Your task to perform on an android device: Show me recent news Image 0: 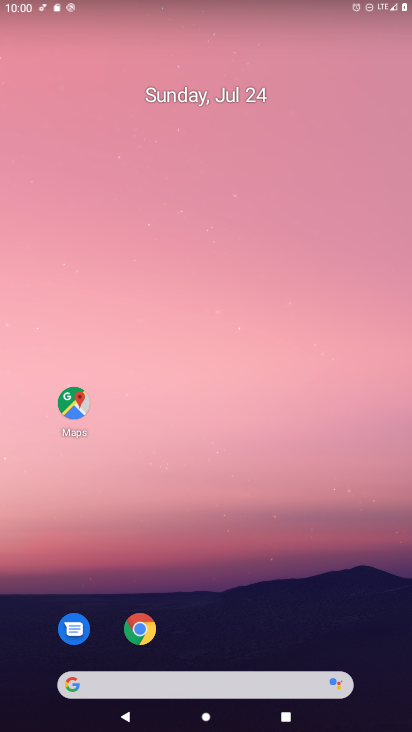
Step 0: drag from (327, 522) to (153, 52)
Your task to perform on an android device: Show me recent news Image 1: 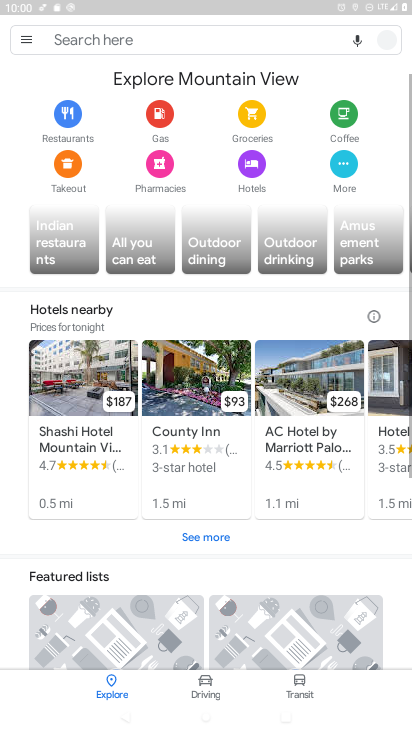
Step 1: press home button
Your task to perform on an android device: Show me recent news Image 2: 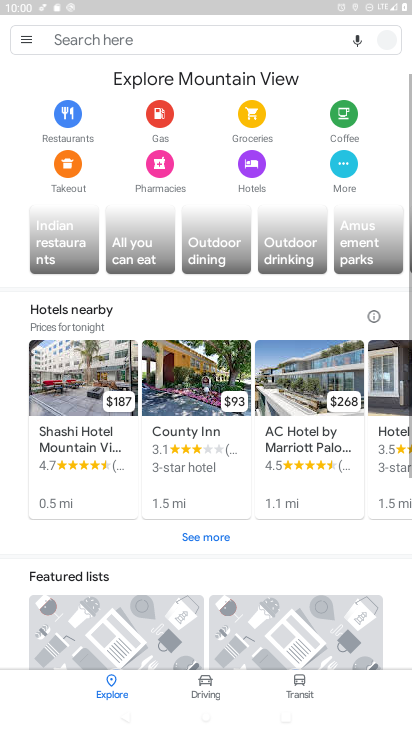
Step 2: click (180, 0)
Your task to perform on an android device: Show me recent news Image 3: 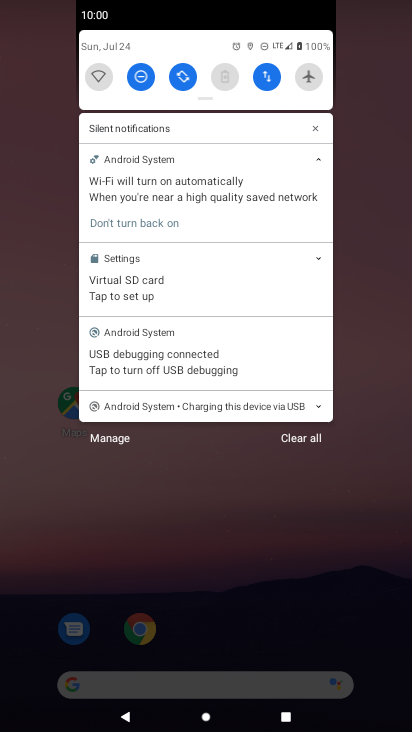
Step 3: click (370, 609)
Your task to perform on an android device: Show me recent news Image 4: 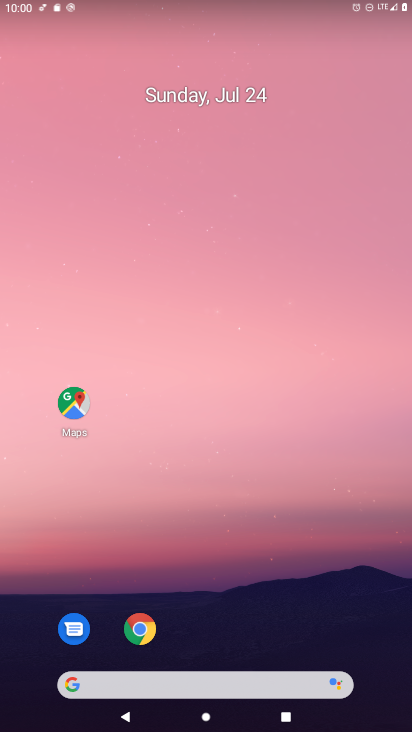
Step 4: drag from (329, 607) to (175, 77)
Your task to perform on an android device: Show me recent news Image 5: 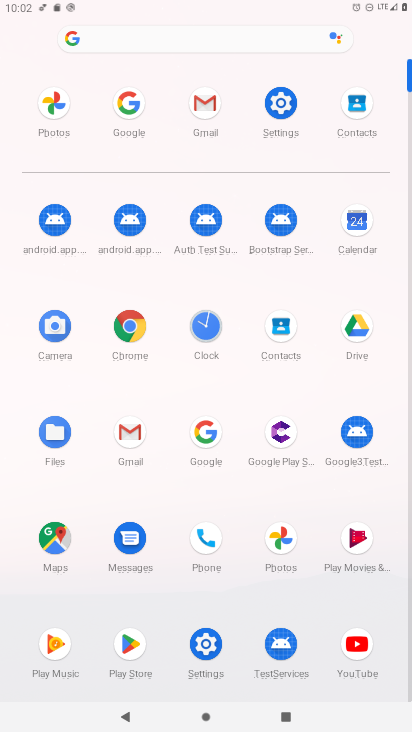
Step 5: click (198, 437)
Your task to perform on an android device: Show me recent news Image 6: 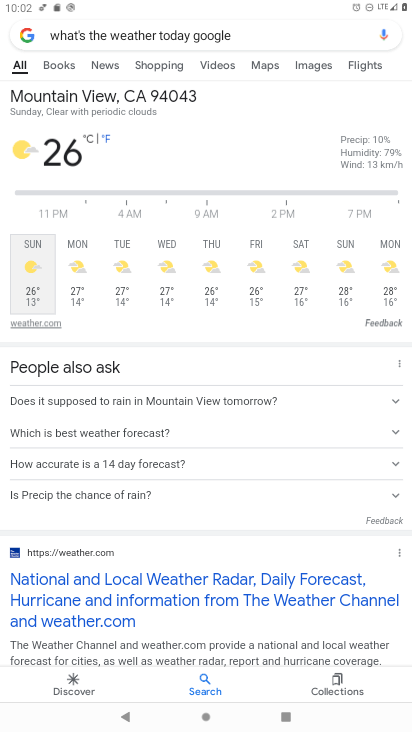
Step 6: press back button
Your task to perform on an android device: Show me recent news Image 7: 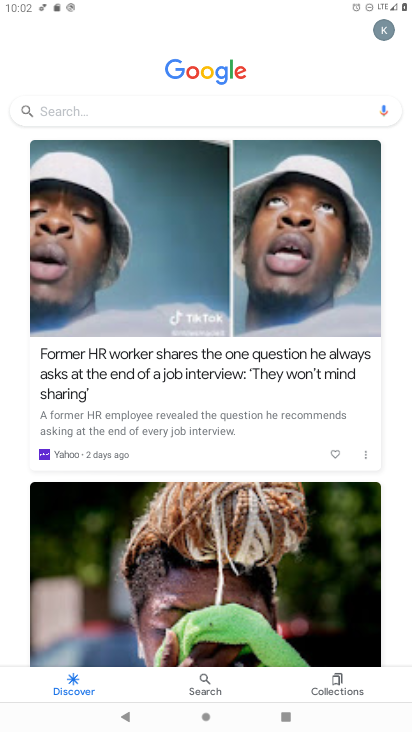
Step 7: click (106, 113)
Your task to perform on an android device: Show me recent news Image 8: 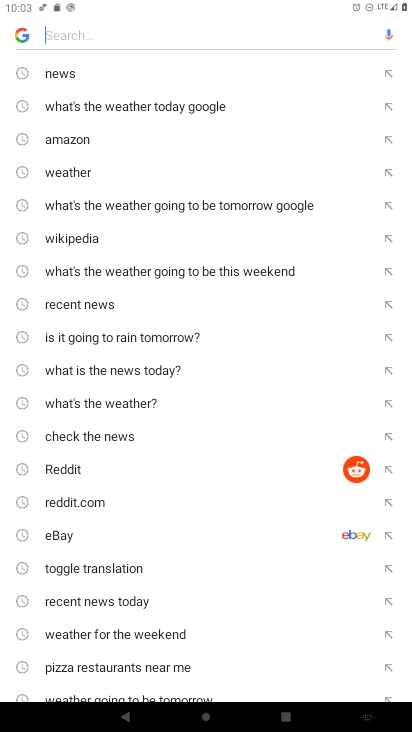
Step 8: type "Show me recent news"
Your task to perform on an android device: Show me recent news Image 9: 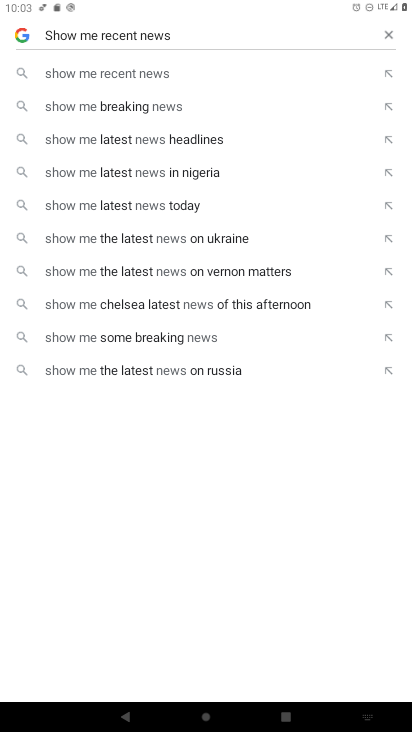
Step 9: click (126, 81)
Your task to perform on an android device: Show me recent news Image 10: 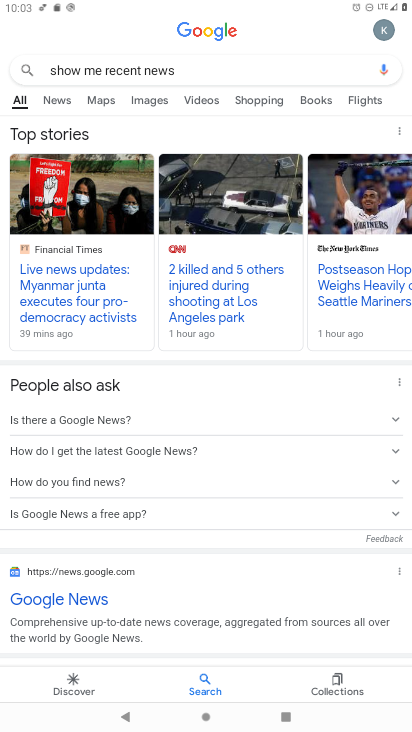
Step 10: task complete